Your task to perform on an android device: What's the news in Guyana? Image 0: 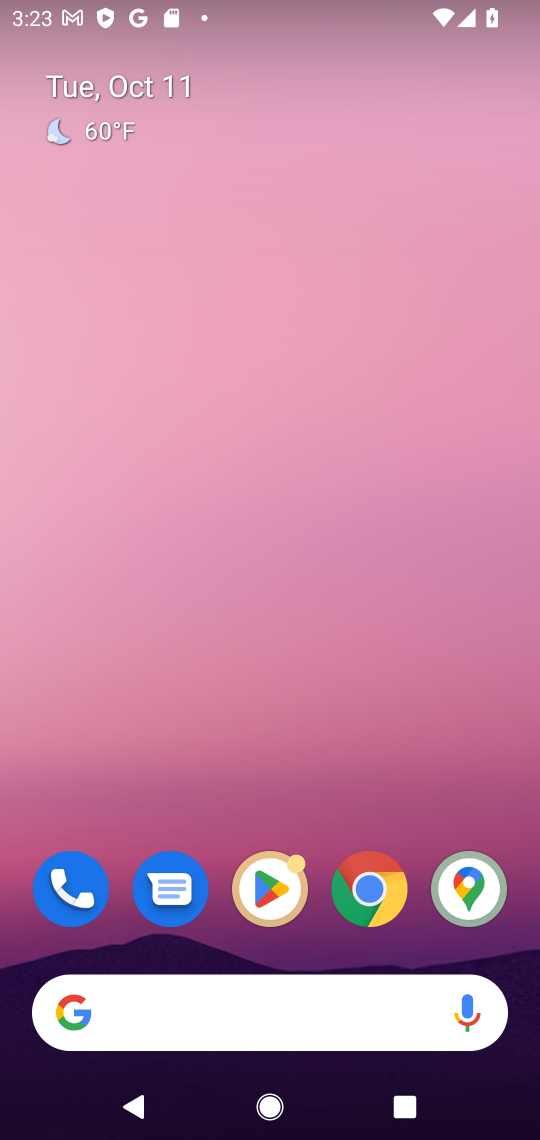
Step 0: drag from (314, 952) to (285, 332)
Your task to perform on an android device: What's the news in Guyana? Image 1: 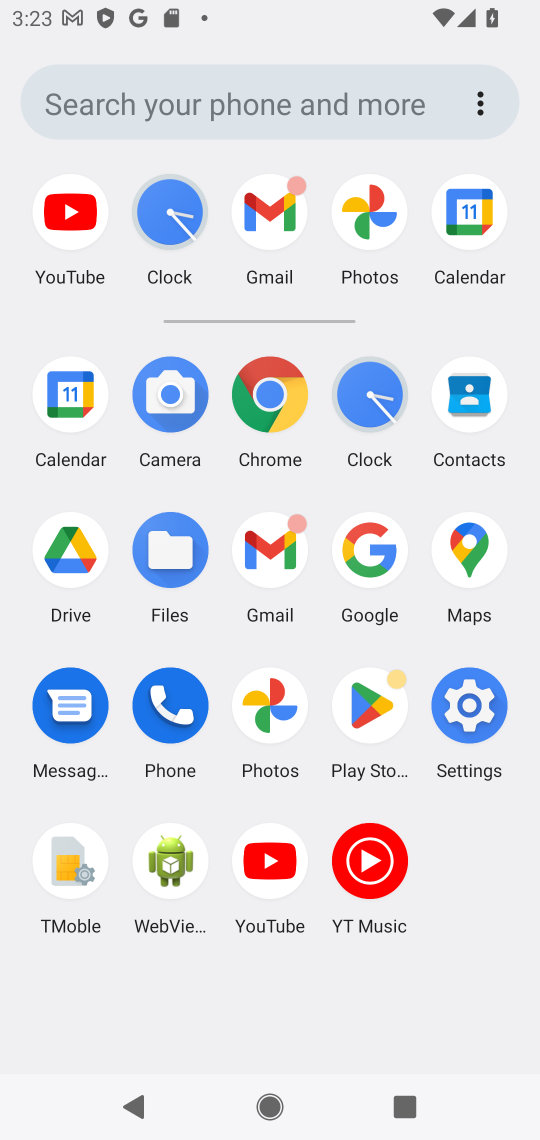
Step 1: click (362, 559)
Your task to perform on an android device: What's the news in Guyana? Image 2: 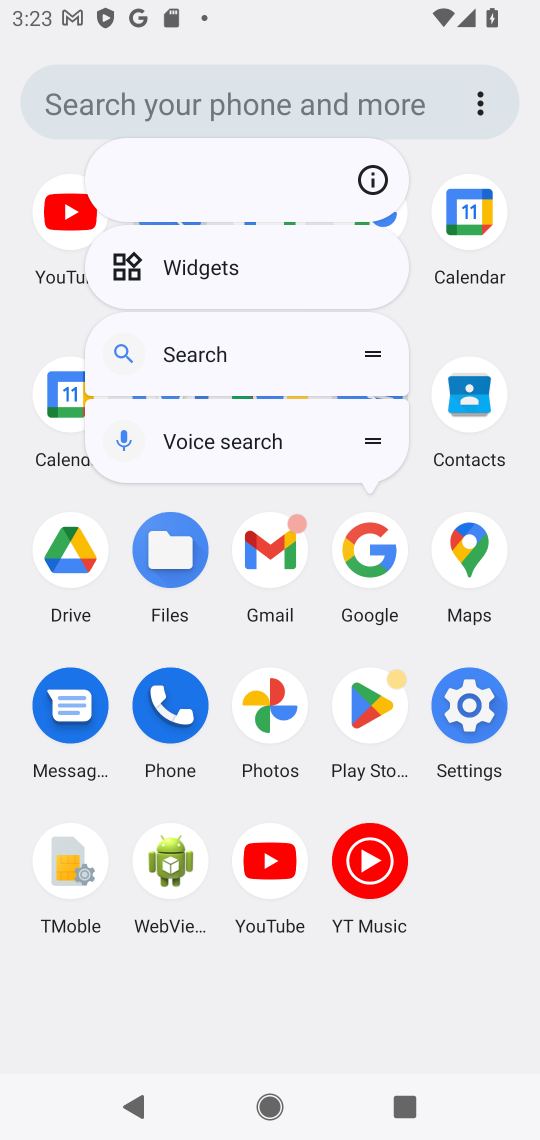
Step 2: click (354, 546)
Your task to perform on an android device: What's the news in Guyana? Image 3: 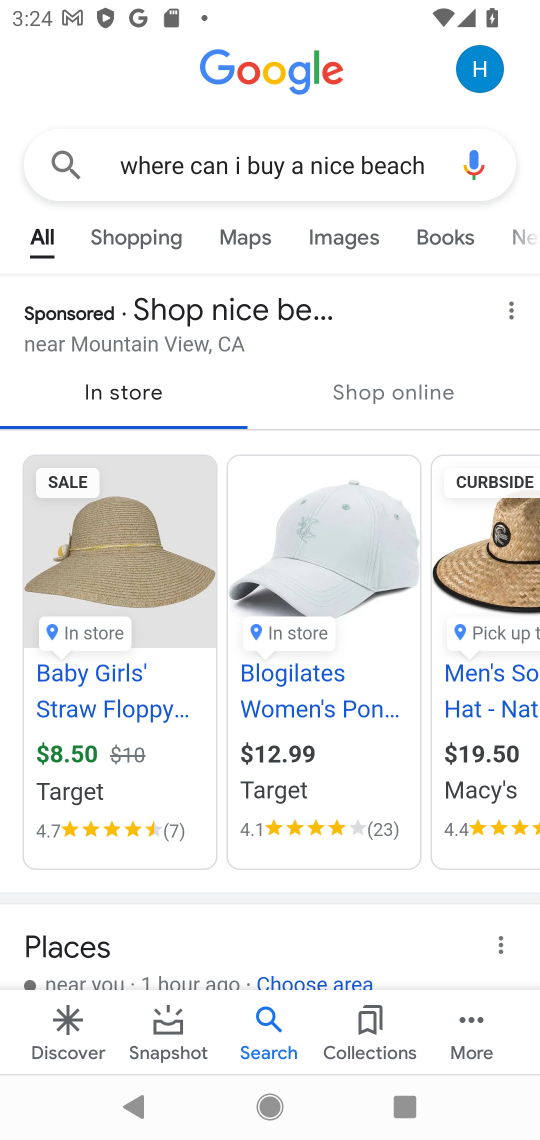
Step 3: click (301, 161)
Your task to perform on an android device: What's the news in Guyana? Image 4: 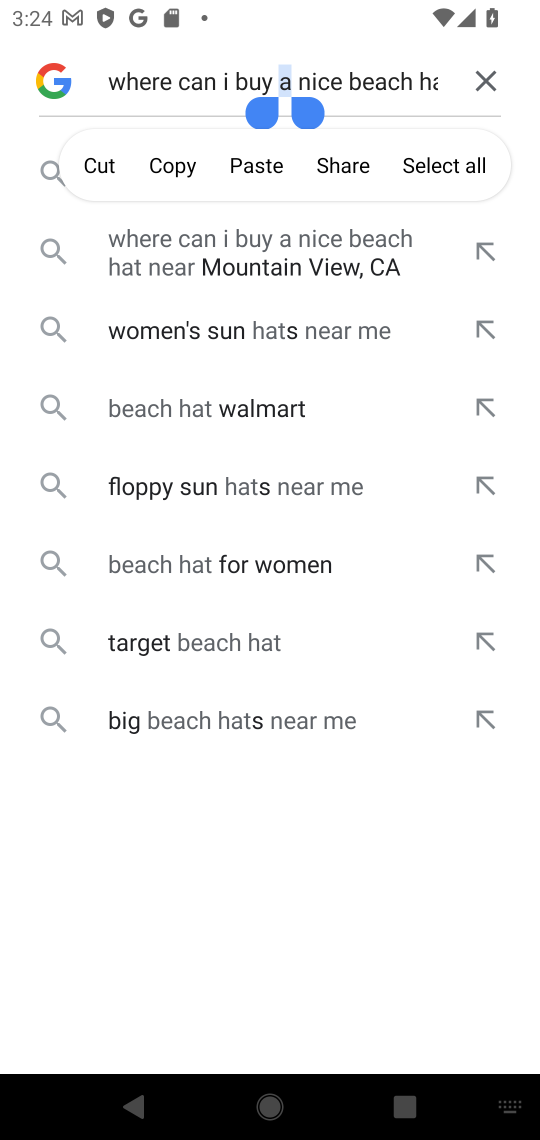
Step 4: click (477, 74)
Your task to perform on an android device: What's the news in Guyana? Image 5: 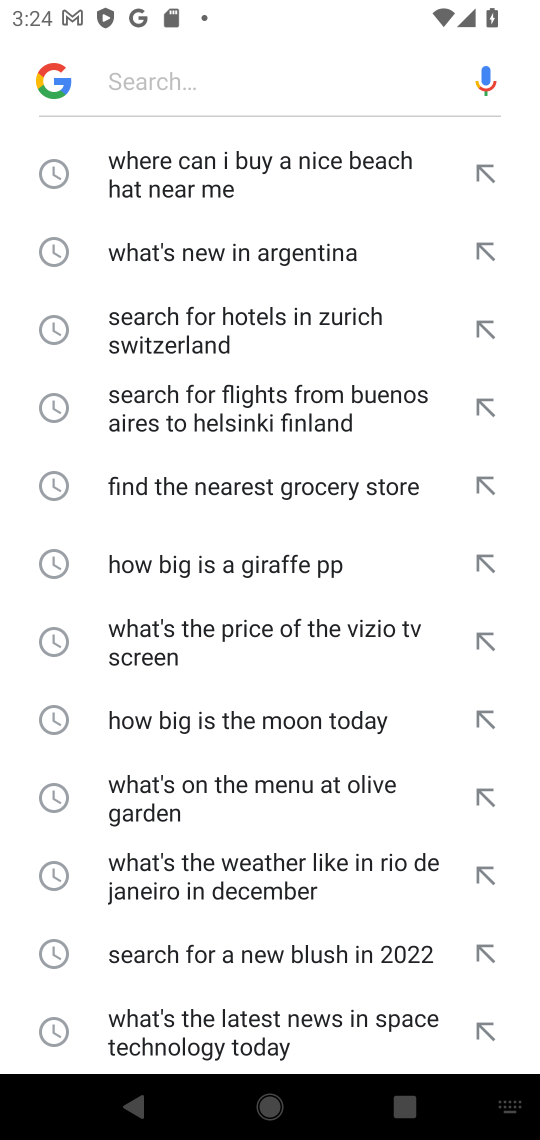
Step 5: click (277, 77)
Your task to perform on an android device: What's the news in Guyana? Image 6: 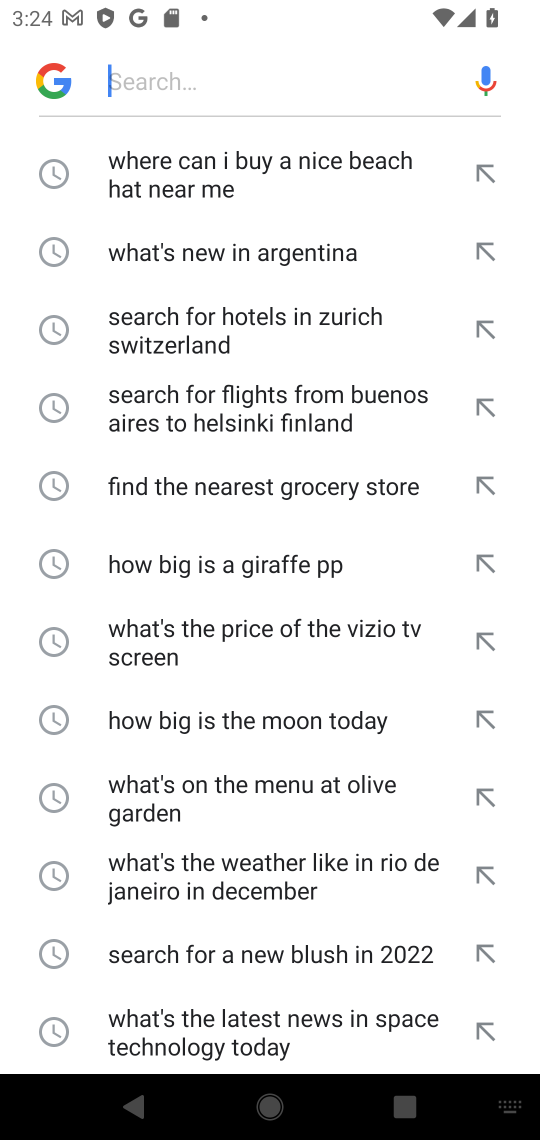
Step 6: type "What's the news in Guyana? "
Your task to perform on an android device: What's the news in Guyana? Image 7: 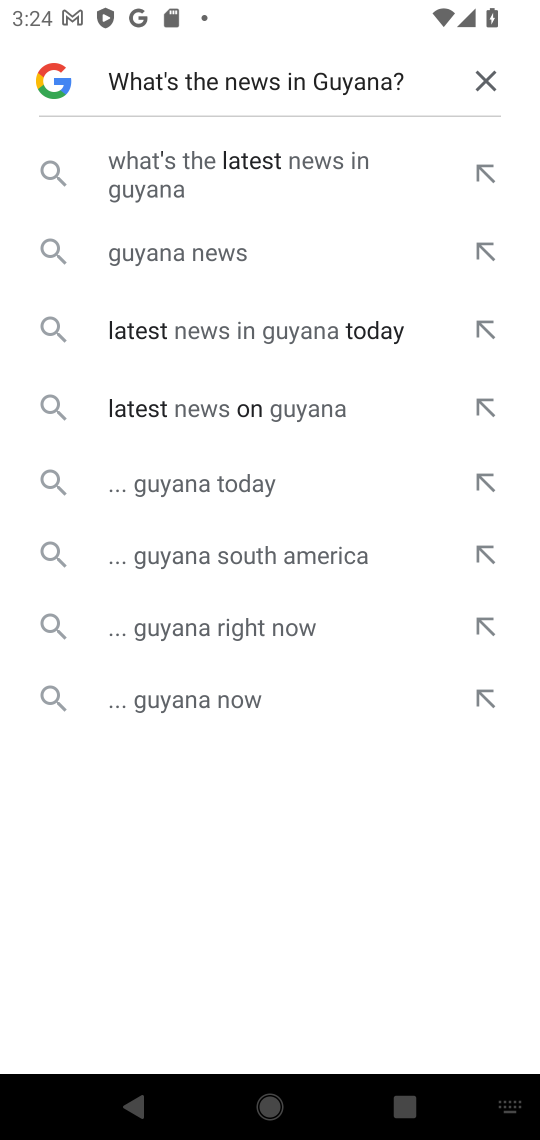
Step 7: click (199, 181)
Your task to perform on an android device: What's the news in Guyana? Image 8: 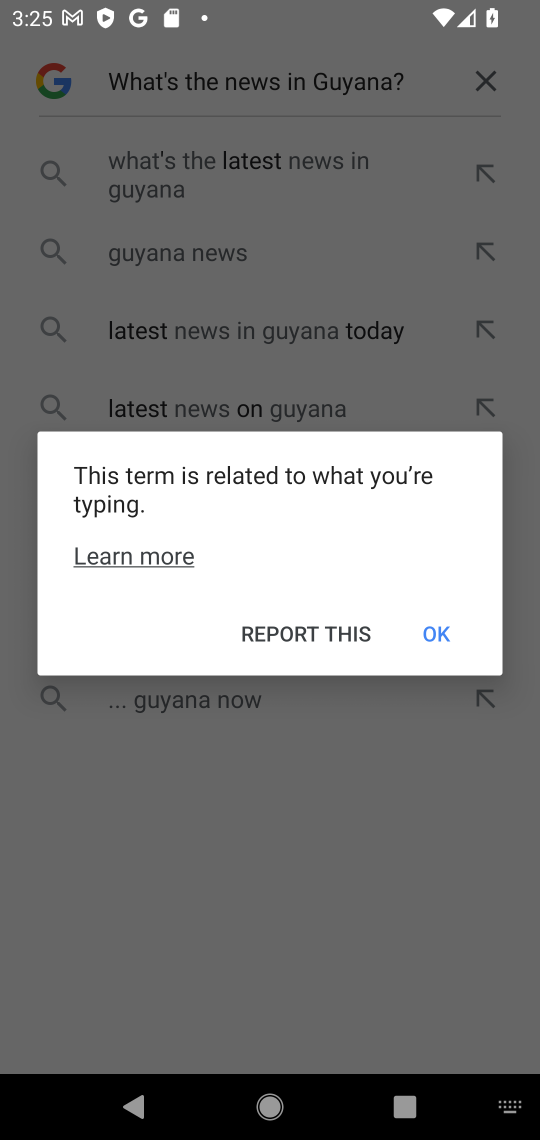
Step 8: click (414, 639)
Your task to perform on an android device: What's the news in Guyana? Image 9: 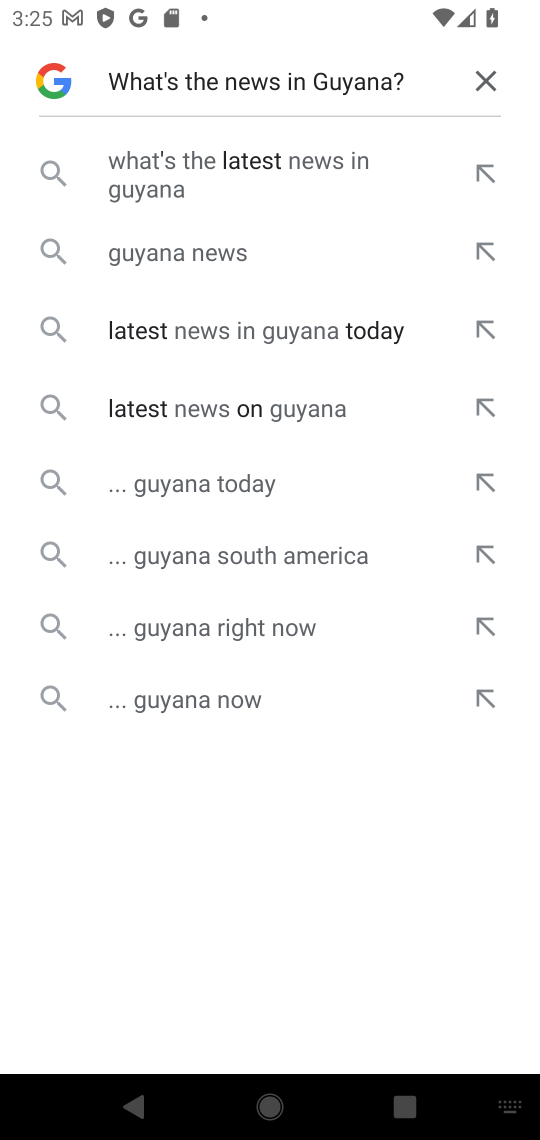
Step 9: click (141, 256)
Your task to perform on an android device: What's the news in Guyana? Image 10: 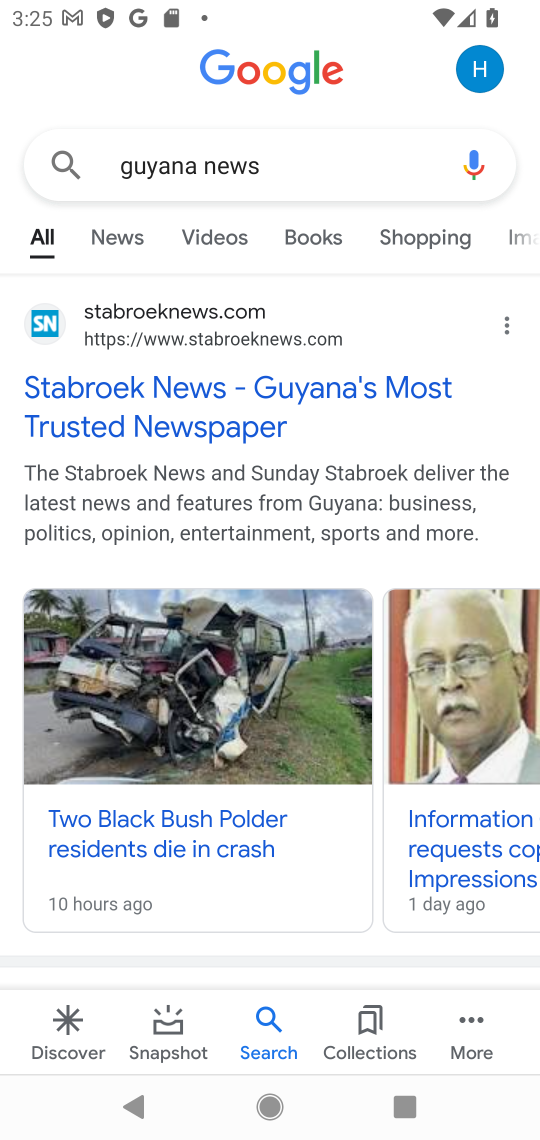
Step 10: task complete